Your task to perform on an android device: Go to Yahoo.com Image 0: 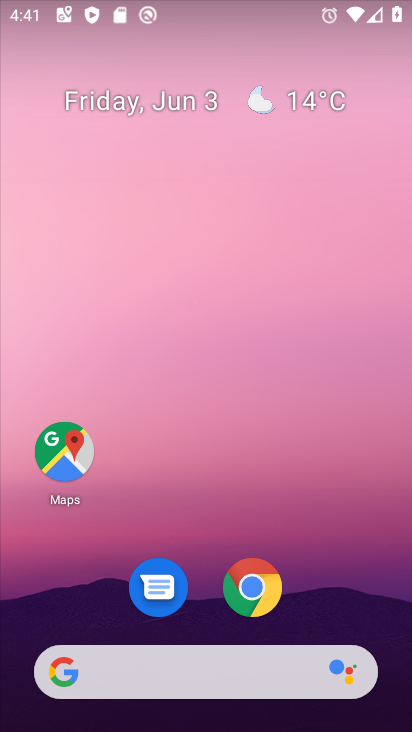
Step 0: click (261, 583)
Your task to perform on an android device: Go to Yahoo.com Image 1: 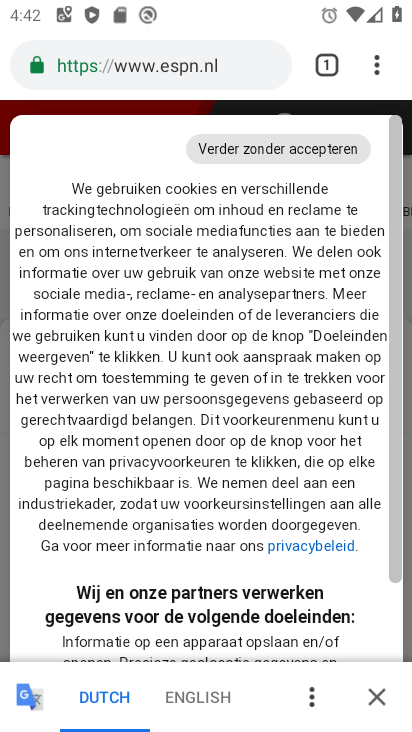
Step 1: click (380, 70)
Your task to perform on an android device: Go to Yahoo.com Image 2: 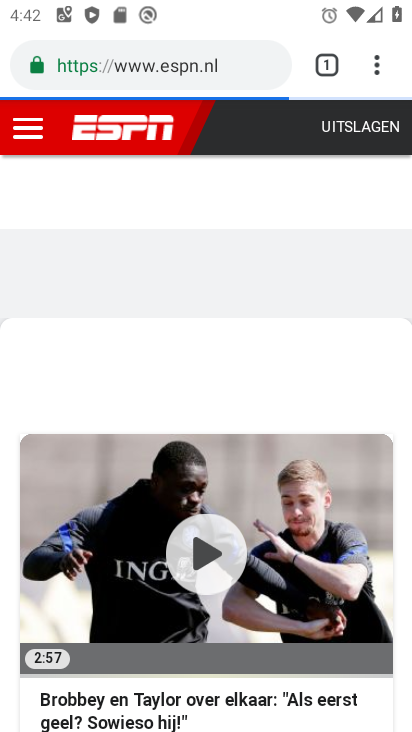
Step 2: click (375, 59)
Your task to perform on an android device: Go to Yahoo.com Image 3: 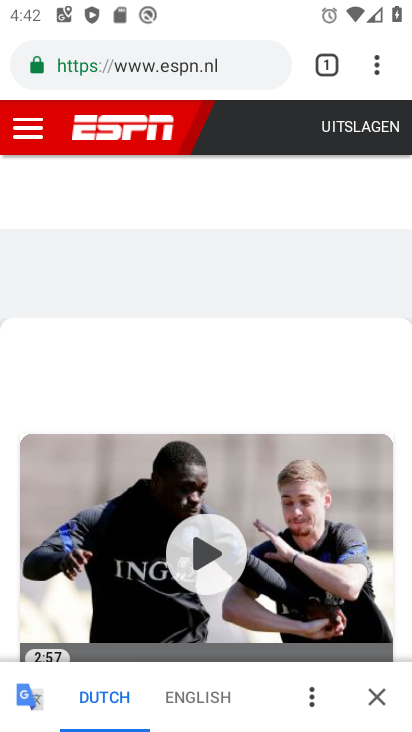
Step 3: press home button
Your task to perform on an android device: Go to Yahoo.com Image 4: 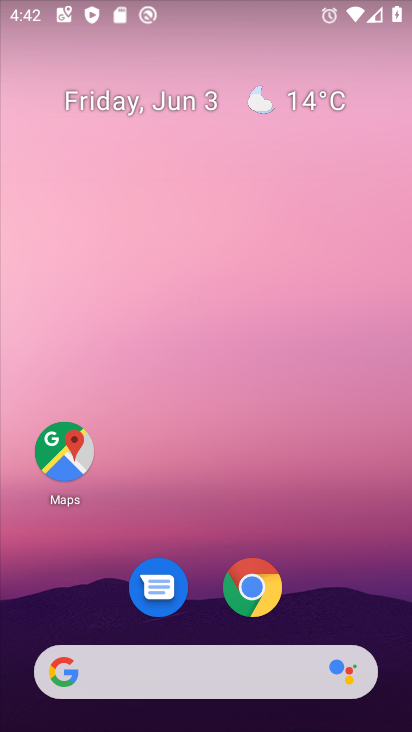
Step 4: click (242, 589)
Your task to perform on an android device: Go to Yahoo.com Image 5: 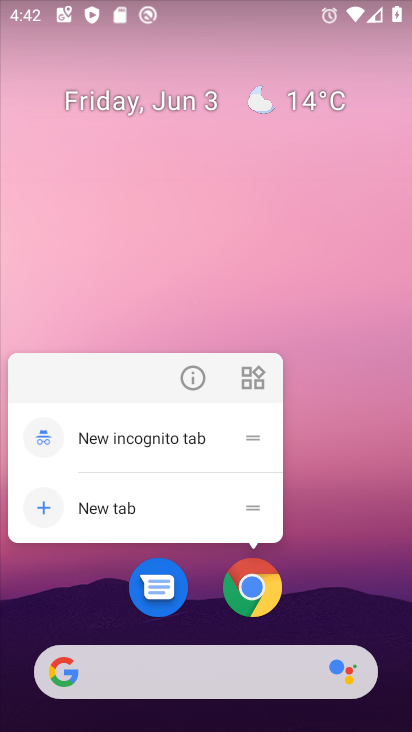
Step 5: click (242, 589)
Your task to perform on an android device: Go to Yahoo.com Image 6: 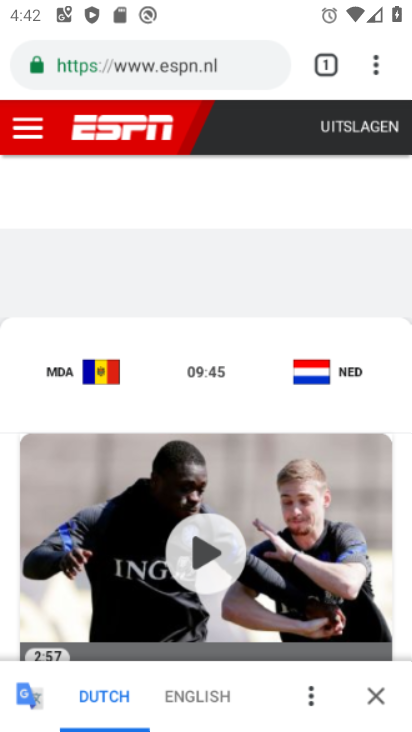
Step 6: click (329, 62)
Your task to perform on an android device: Go to Yahoo.com Image 7: 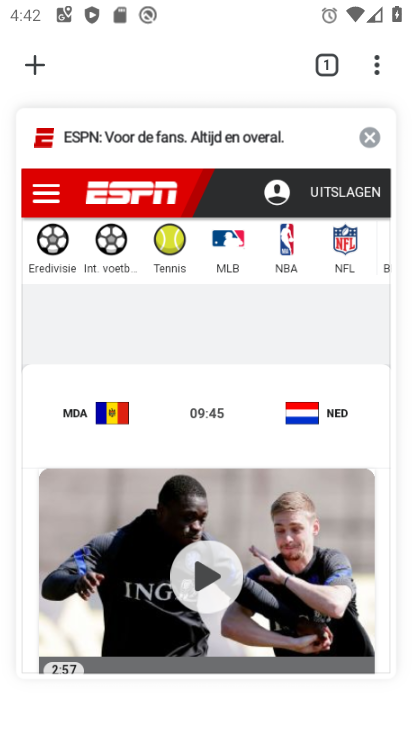
Step 7: click (381, 139)
Your task to perform on an android device: Go to Yahoo.com Image 8: 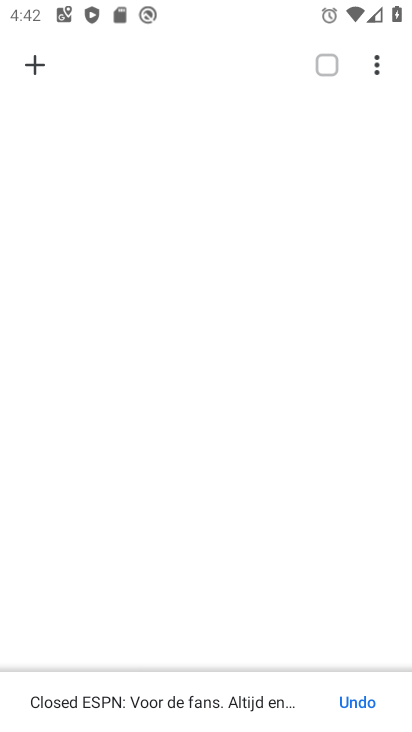
Step 8: click (379, 64)
Your task to perform on an android device: Go to Yahoo.com Image 9: 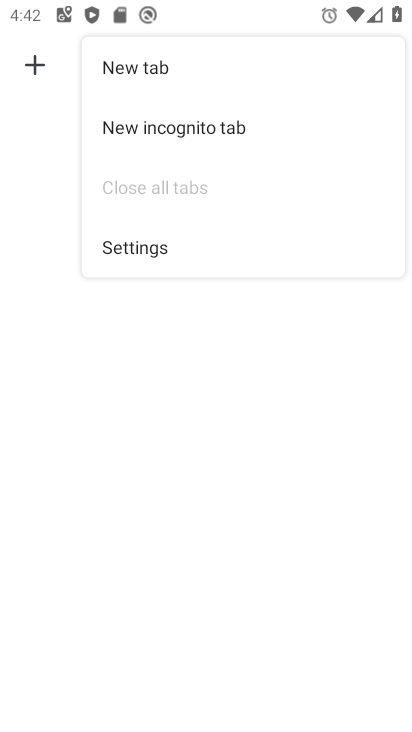
Step 9: click (162, 251)
Your task to perform on an android device: Go to Yahoo.com Image 10: 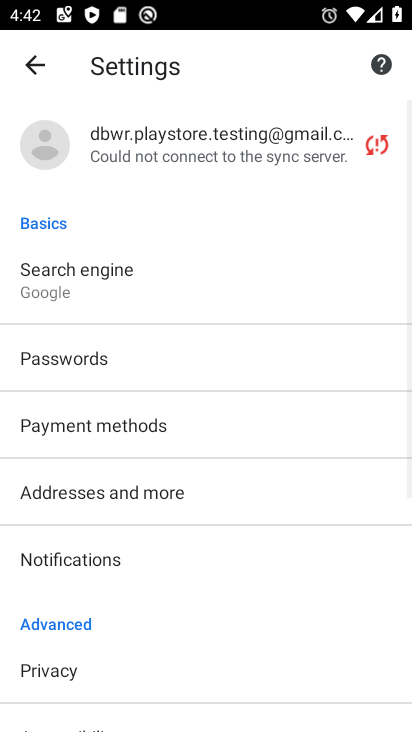
Step 10: drag from (129, 650) to (129, 263)
Your task to perform on an android device: Go to Yahoo.com Image 11: 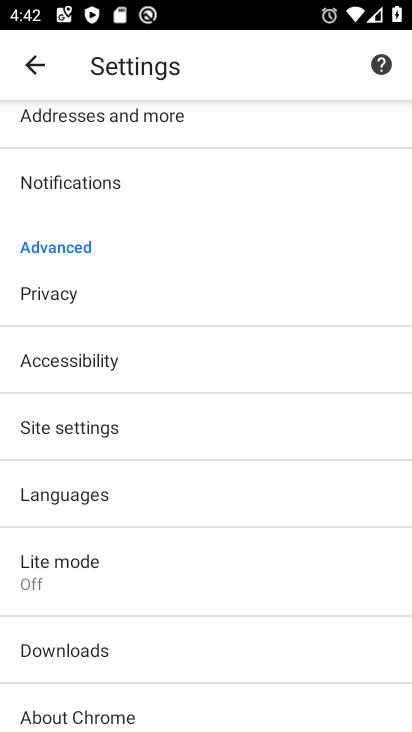
Step 11: click (30, 81)
Your task to perform on an android device: Go to Yahoo.com Image 12: 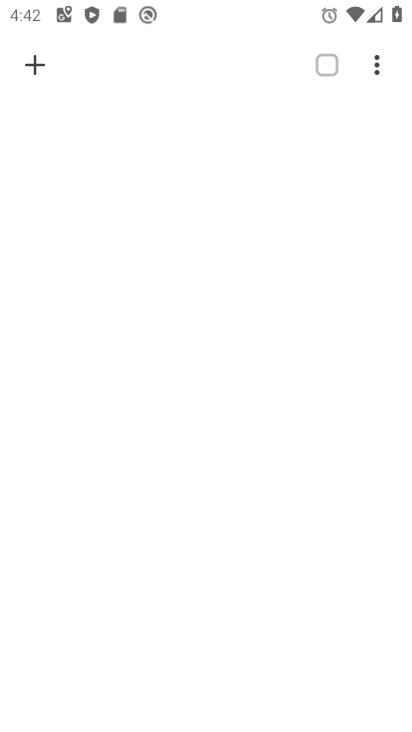
Step 12: click (35, 75)
Your task to perform on an android device: Go to Yahoo.com Image 13: 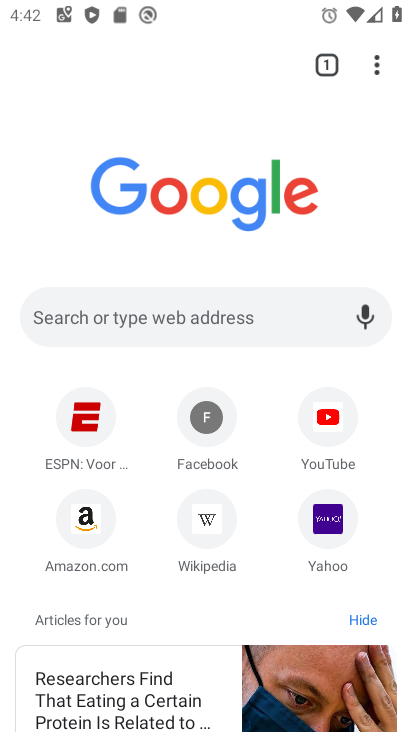
Step 13: click (325, 520)
Your task to perform on an android device: Go to Yahoo.com Image 14: 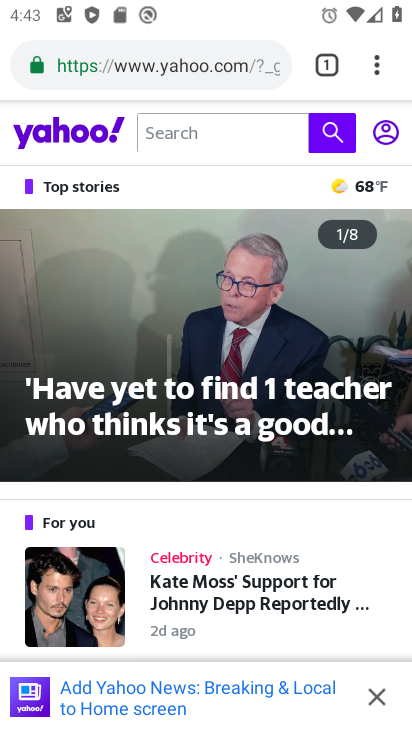
Step 14: task complete